Your task to perform on an android device: install app "Gmail" Image 0: 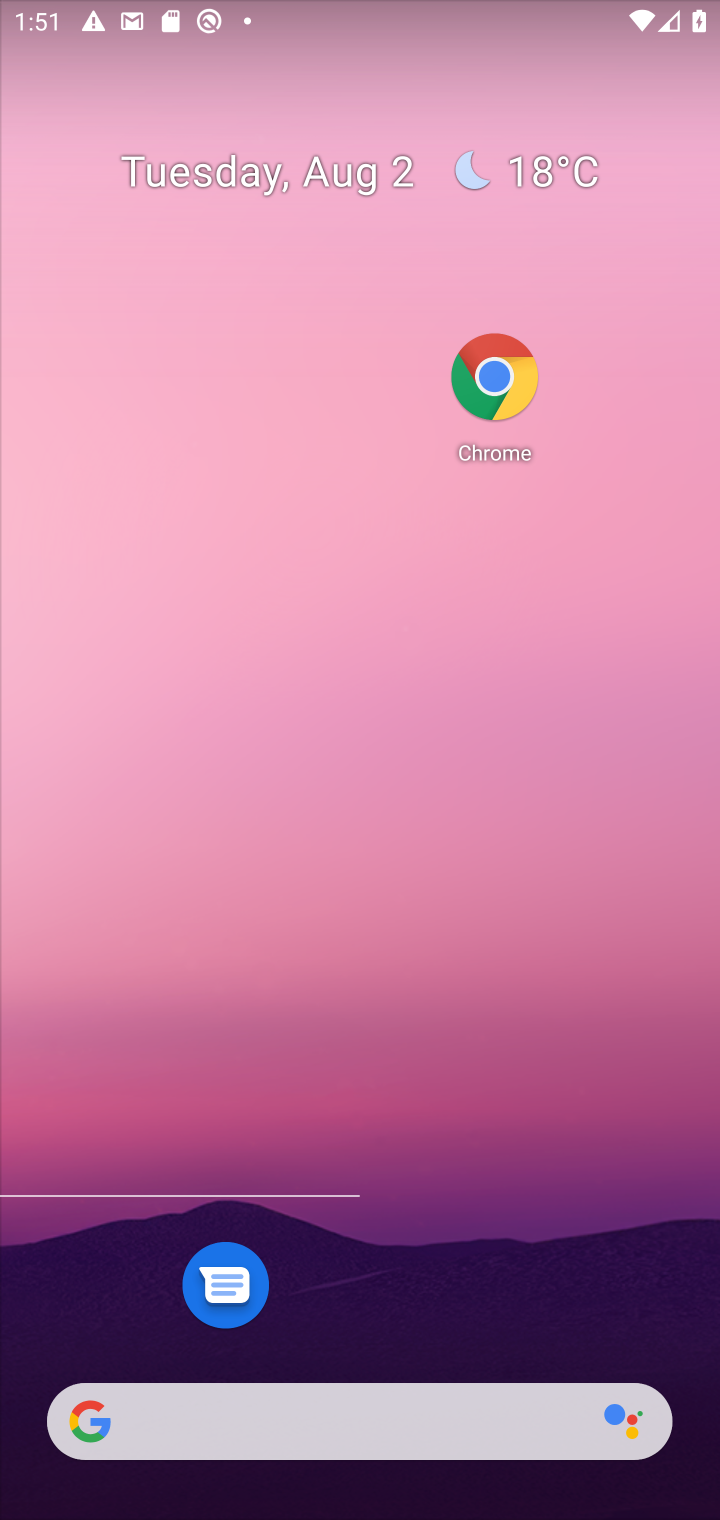
Step 0: press home button
Your task to perform on an android device: install app "Gmail" Image 1: 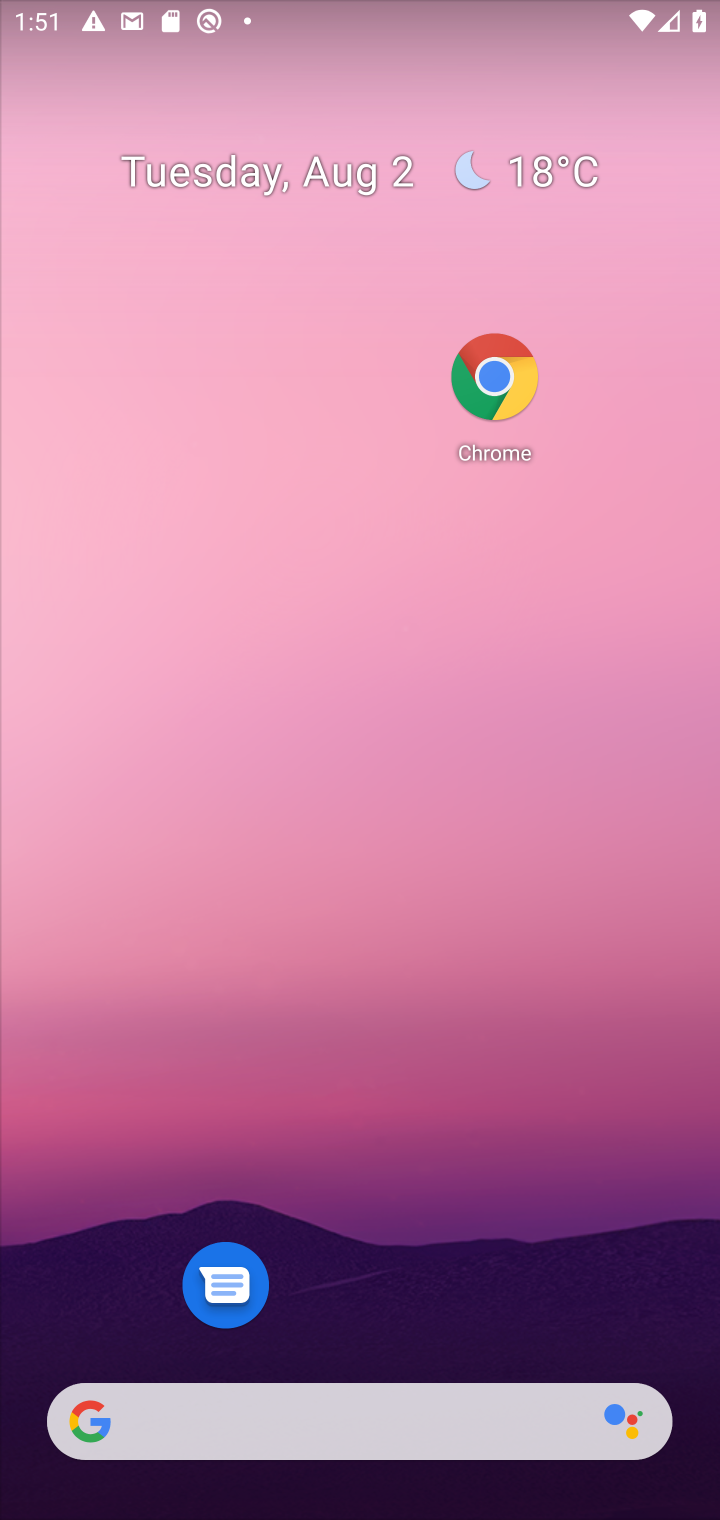
Step 1: drag from (450, 1307) to (455, 2)
Your task to perform on an android device: install app "Gmail" Image 2: 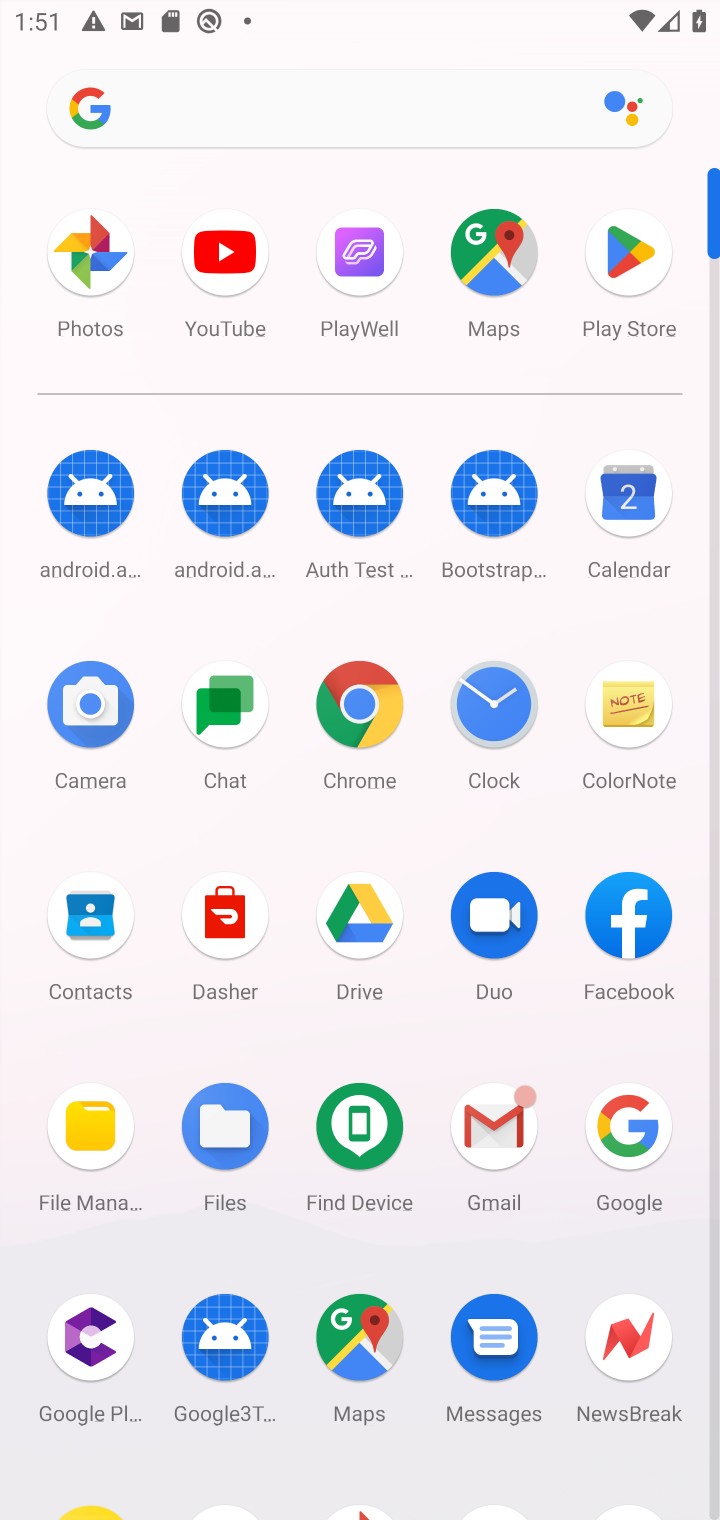
Step 2: click (628, 255)
Your task to perform on an android device: install app "Gmail" Image 3: 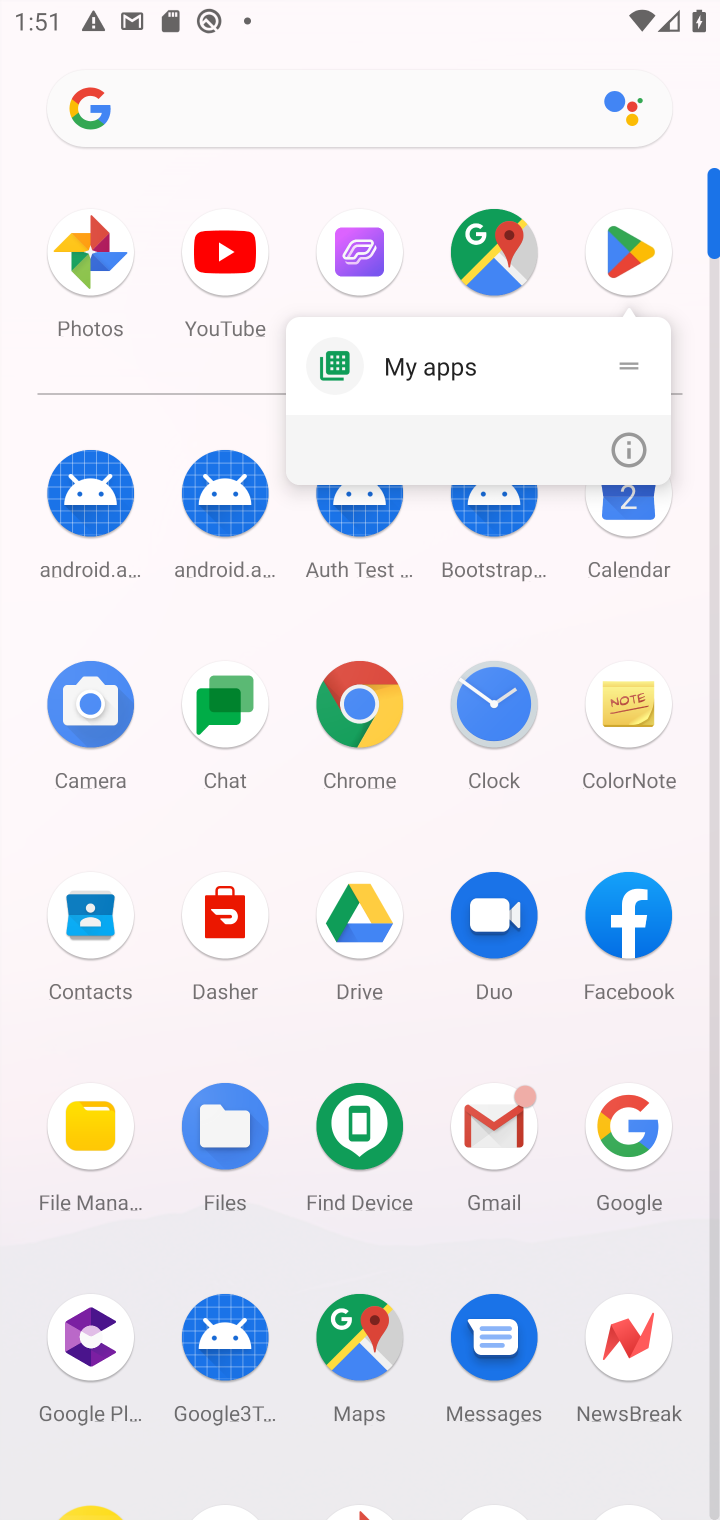
Step 3: click (628, 255)
Your task to perform on an android device: install app "Gmail" Image 4: 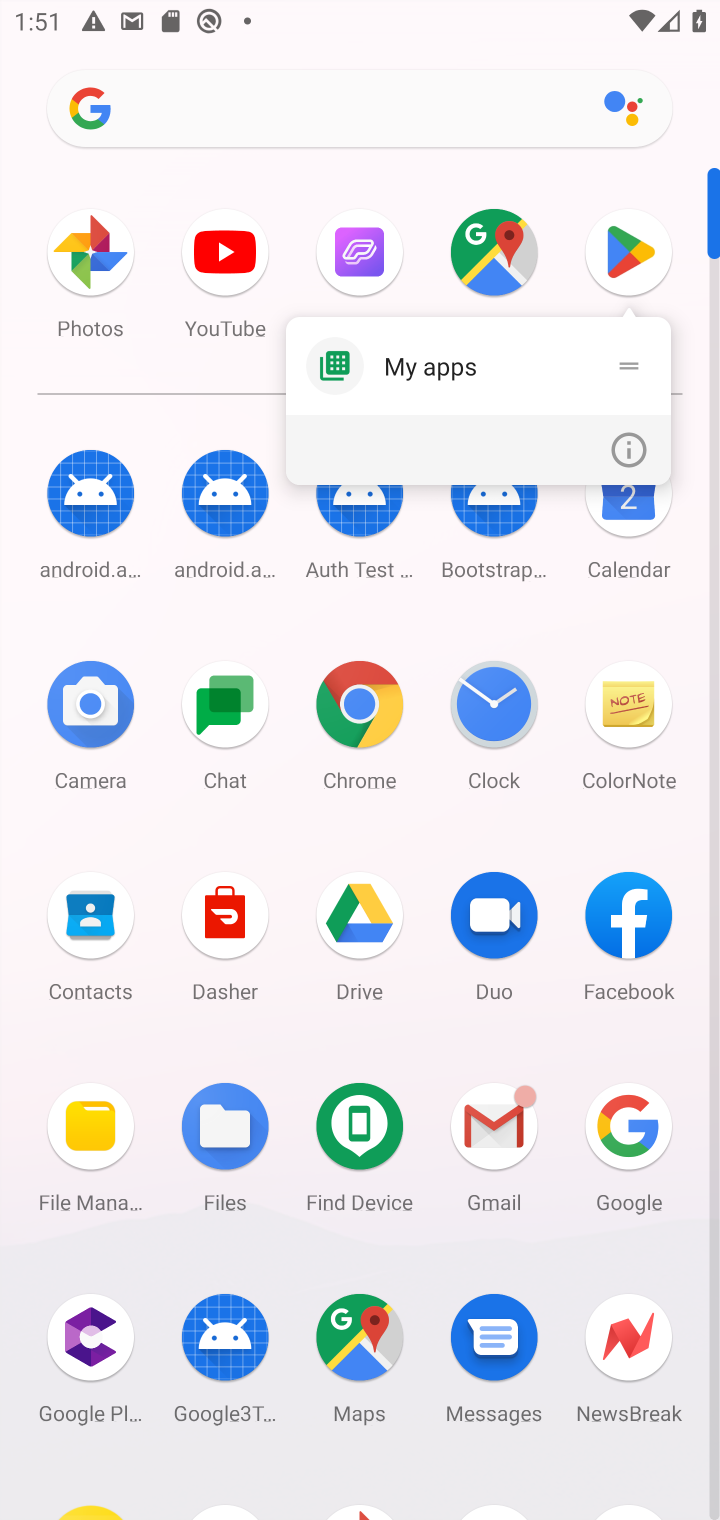
Step 4: click (628, 255)
Your task to perform on an android device: install app "Gmail" Image 5: 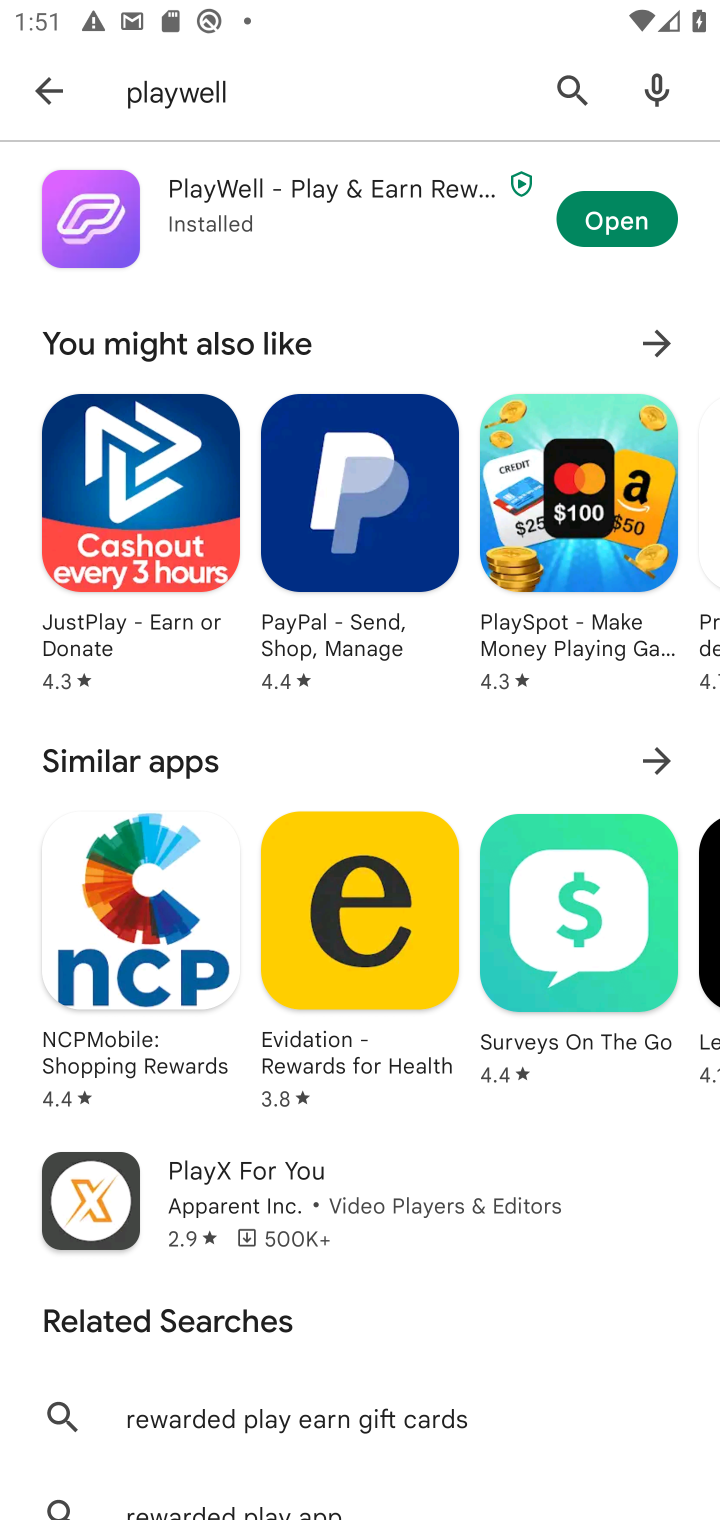
Step 5: click (592, 95)
Your task to perform on an android device: install app "Gmail" Image 6: 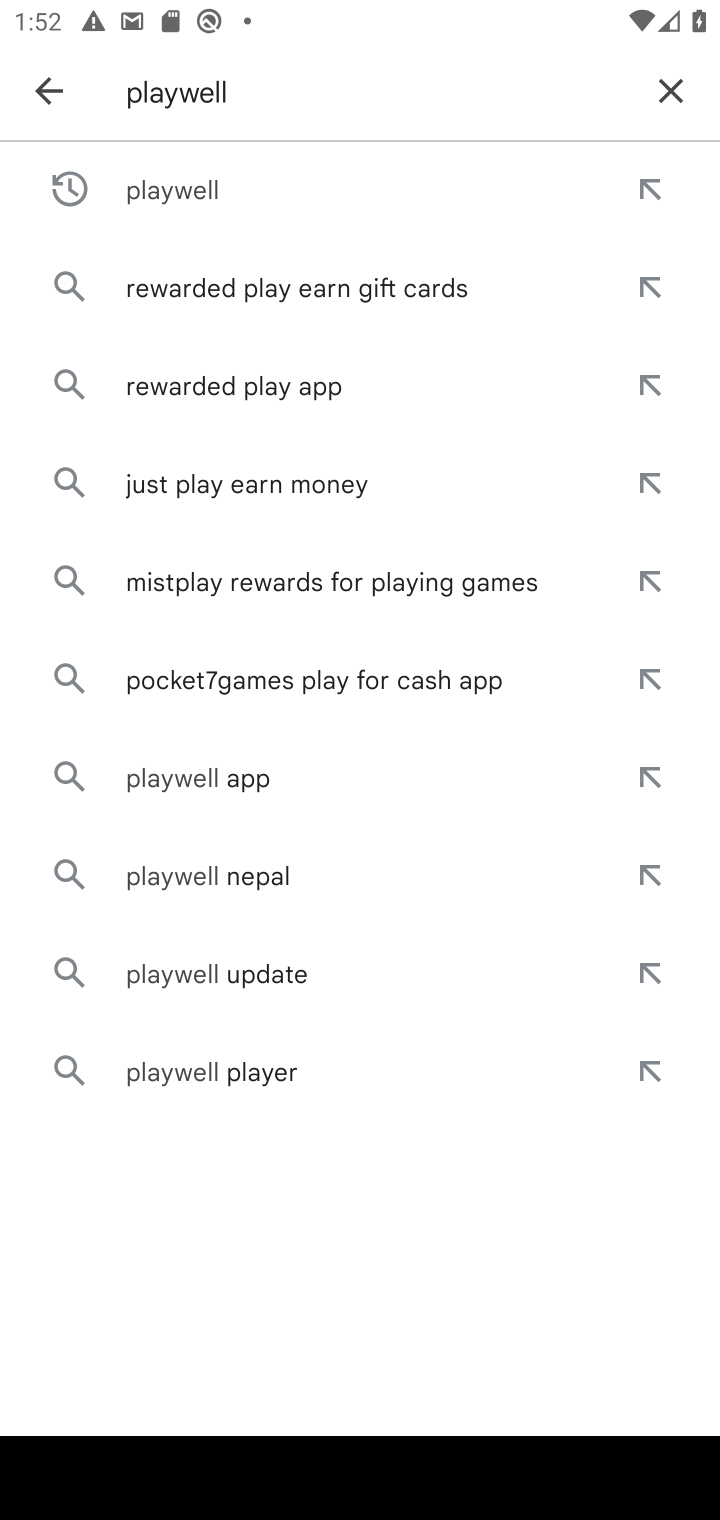
Step 6: click (657, 107)
Your task to perform on an android device: install app "Gmail" Image 7: 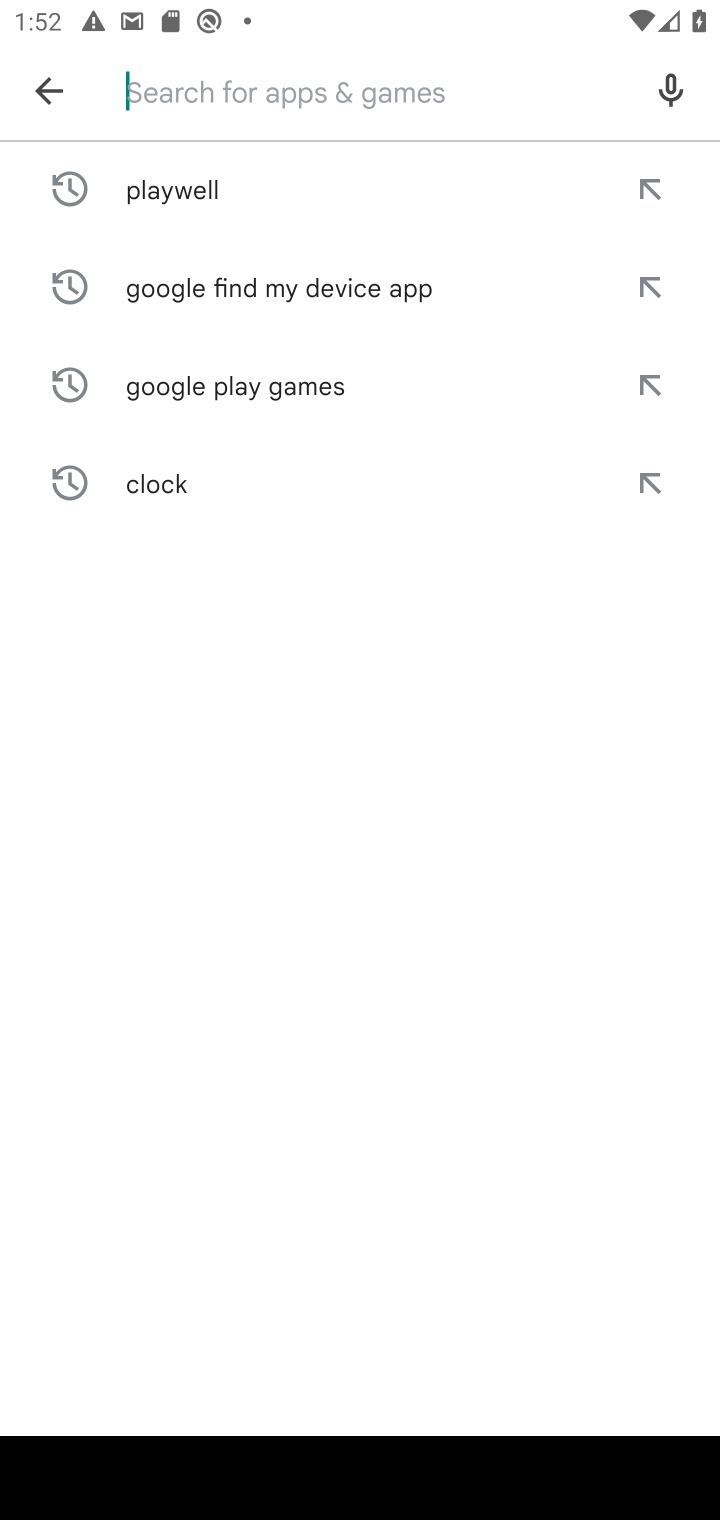
Step 7: type "Gmail"
Your task to perform on an android device: install app "Gmail" Image 8: 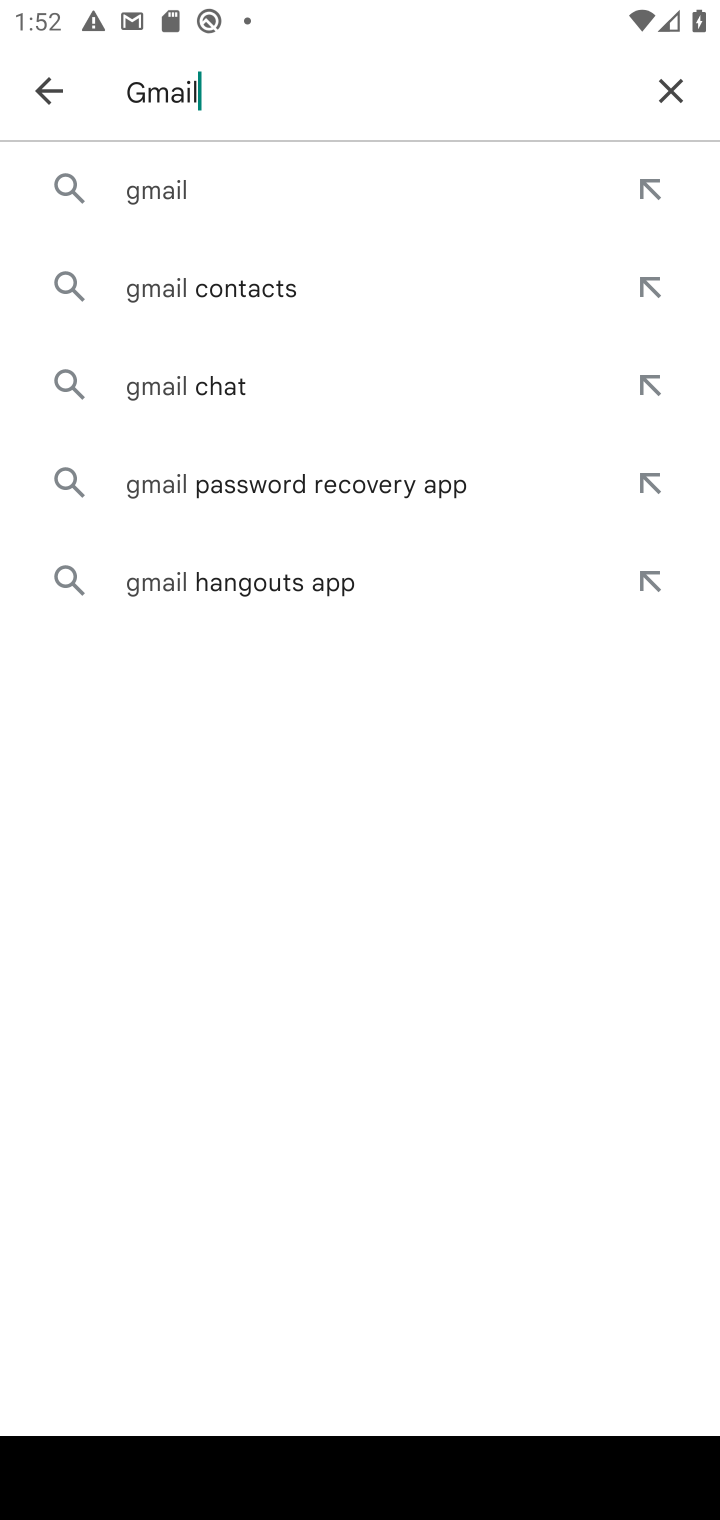
Step 8: click (108, 162)
Your task to perform on an android device: install app "Gmail" Image 9: 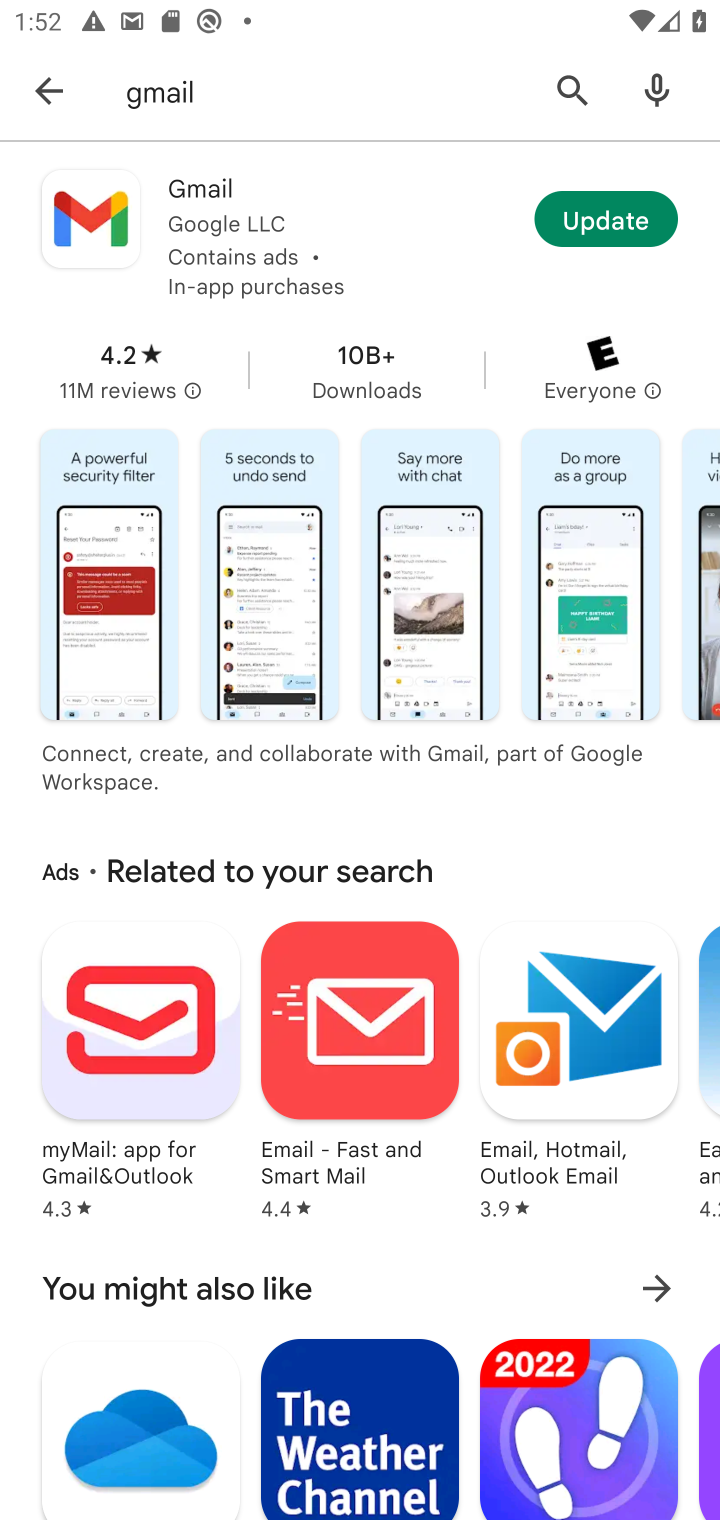
Step 9: task complete